Your task to perform on an android device: Go to ESPN.com Image 0: 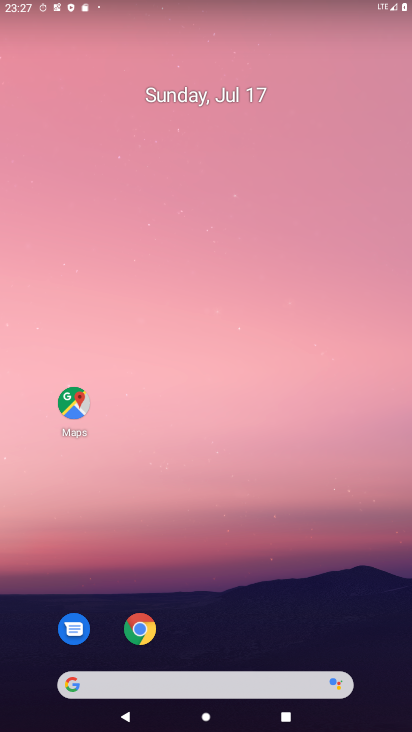
Step 0: drag from (228, 687) to (228, 303)
Your task to perform on an android device: Go to ESPN.com Image 1: 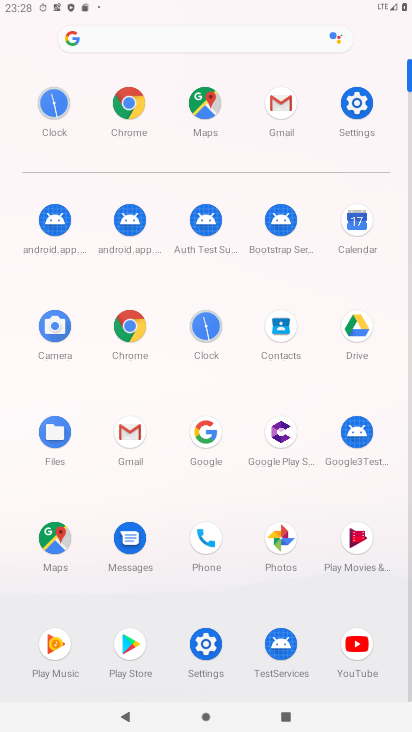
Step 1: click (122, 100)
Your task to perform on an android device: Go to ESPN.com Image 2: 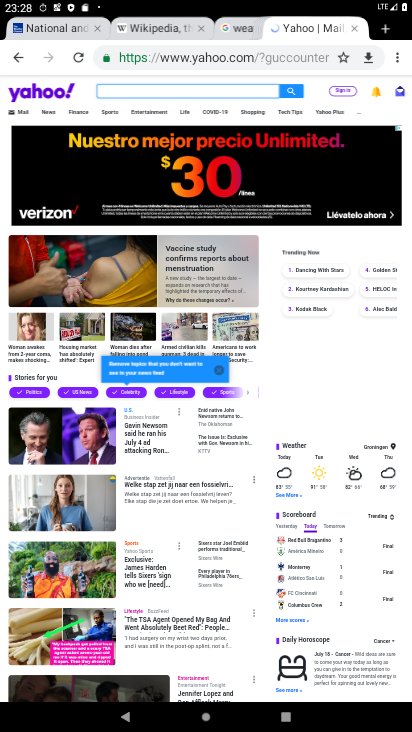
Step 2: click (398, 60)
Your task to perform on an android device: Go to ESPN.com Image 3: 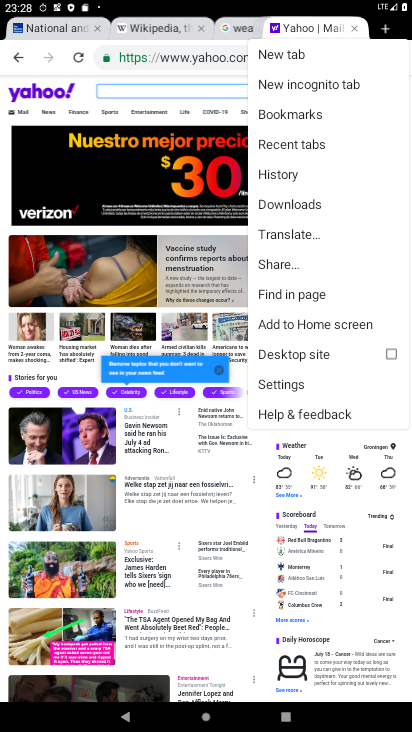
Step 3: click (286, 53)
Your task to perform on an android device: Go to ESPN.com Image 4: 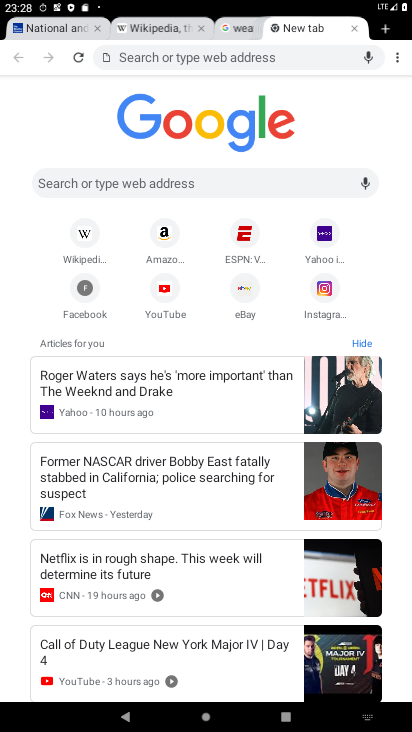
Step 4: click (246, 229)
Your task to perform on an android device: Go to ESPN.com Image 5: 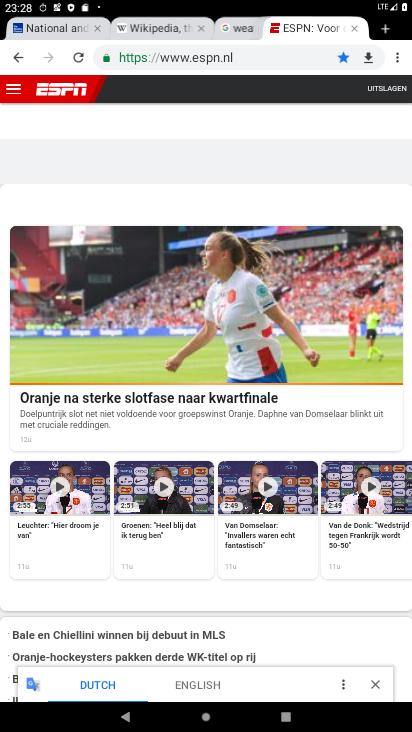
Step 5: task complete